Your task to perform on an android device: turn on the 12-hour format for clock Image 0: 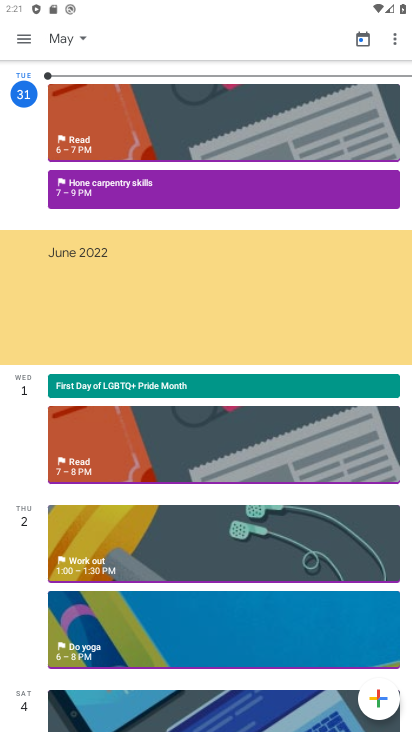
Step 0: press home button
Your task to perform on an android device: turn on the 12-hour format for clock Image 1: 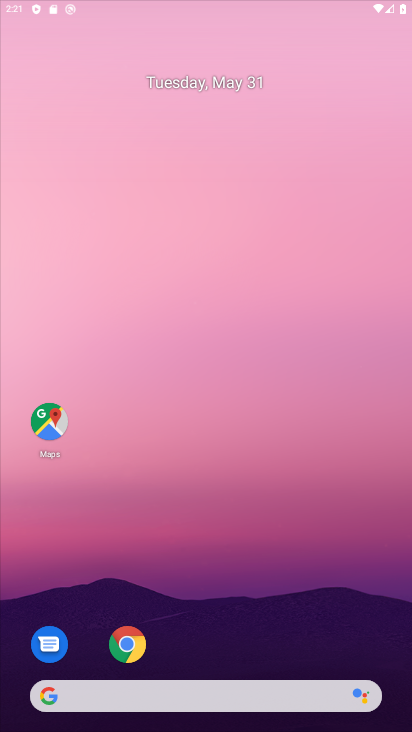
Step 1: drag from (247, 592) to (228, 63)
Your task to perform on an android device: turn on the 12-hour format for clock Image 2: 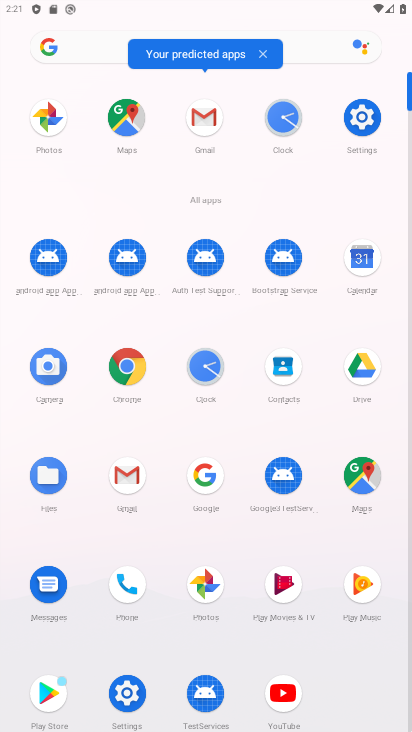
Step 2: click (284, 116)
Your task to perform on an android device: turn on the 12-hour format for clock Image 3: 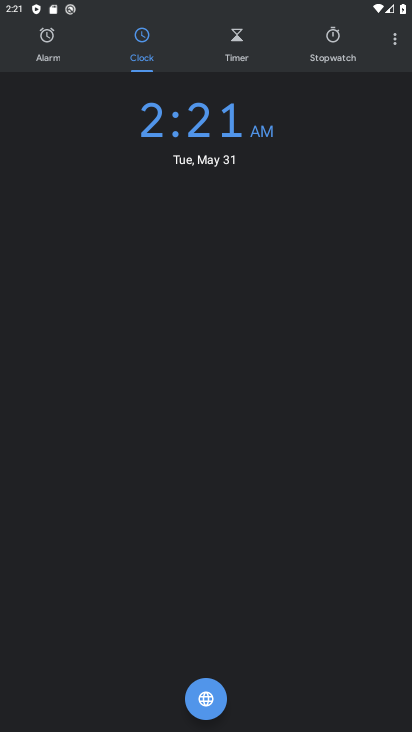
Step 3: click (398, 48)
Your task to perform on an android device: turn on the 12-hour format for clock Image 4: 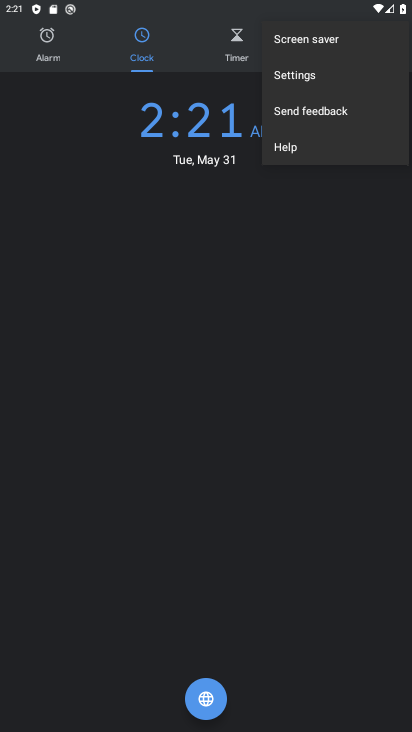
Step 4: click (299, 70)
Your task to perform on an android device: turn on the 12-hour format for clock Image 5: 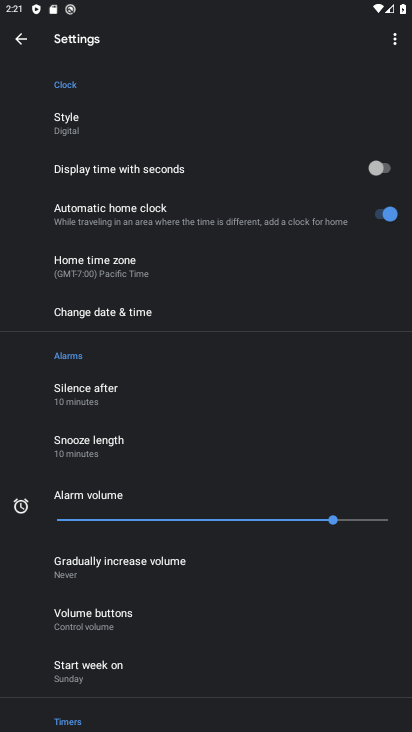
Step 5: click (154, 317)
Your task to perform on an android device: turn on the 12-hour format for clock Image 6: 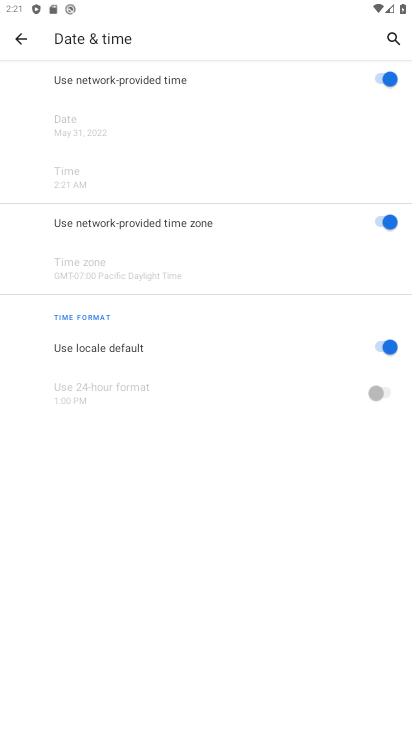
Step 6: task complete